Your task to perform on an android device: Open wifi settings Image 0: 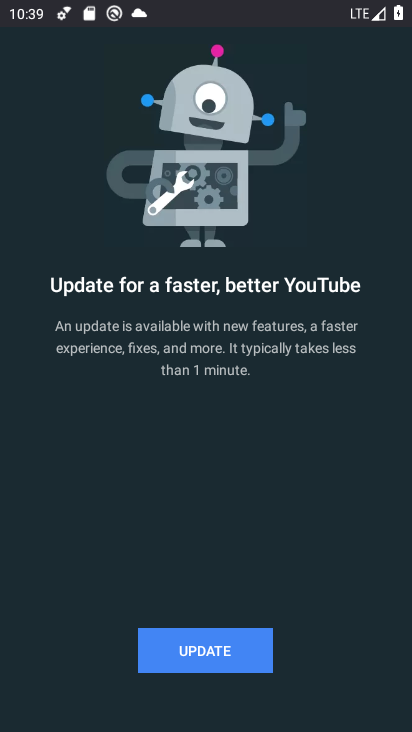
Step 0: press home button
Your task to perform on an android device: Open wifi settings Image 1: 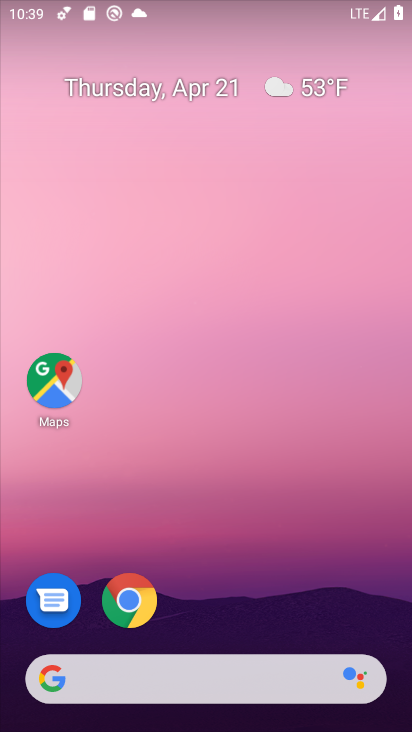
Step 1: drag from (242, 617) to (256, 18)
Your task to perform on an android device: Open wifi settings Image 2: 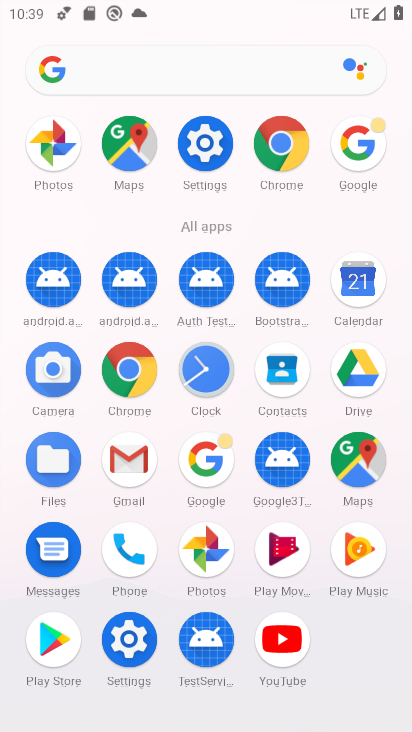
Step 2: click (205, 156)
Your task to perform on an android device: Open wifi settings Image 3: 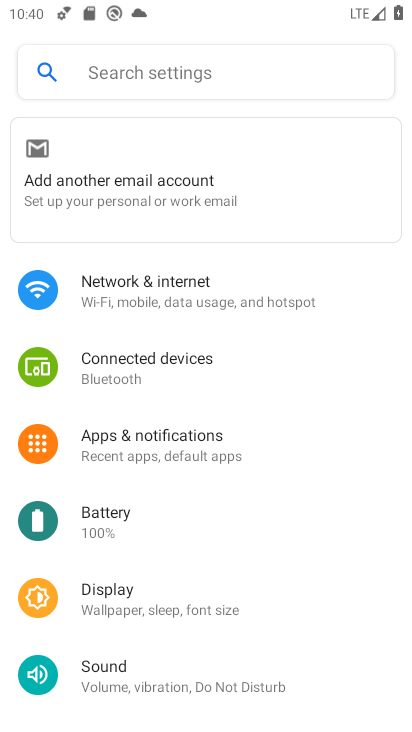
Step 3: click (194, 293)
Your task to perform on an android device: Open wifi settings Image 4: 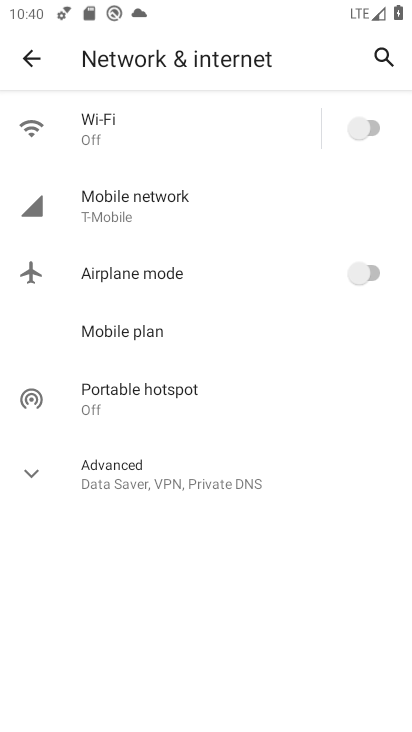
Step 4: click (158, 115)
Your task to perform on an android device: Open wifi settings Image 5: 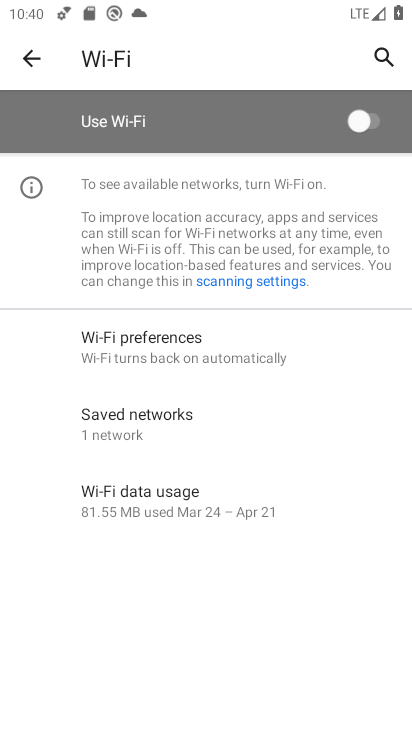
Step 5: task complete